Your task to perform on an android device: turn on bluetooth scan Image 0: 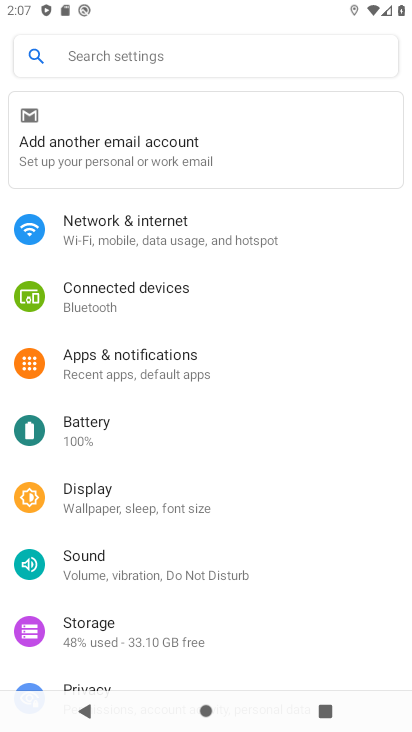
Step 0: drag from (99, 537) to (141, 304)
Your task to perform on an android device: turn on bluetooth scan Image 1: 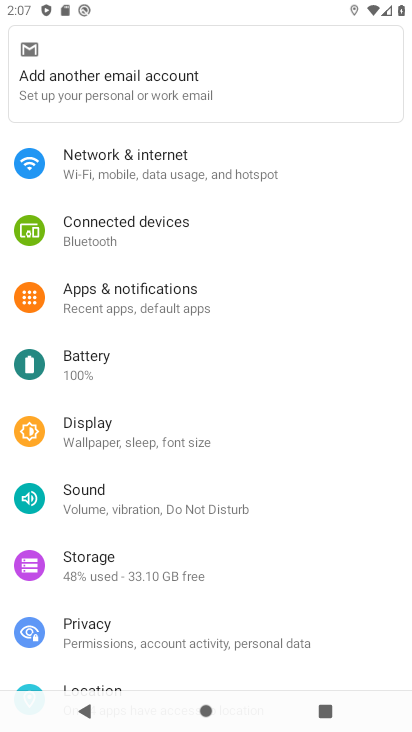
Step 1: drag from (112, 641) to (209, 312)
Your task to perform on an android device: turn on bluetooth scan Image 2: 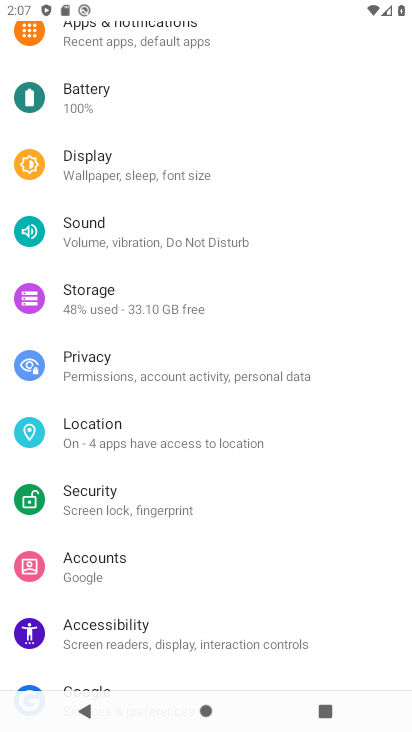
Step 2: click (136, 447)
Your task to perform on an android device: turn on bluetooth scan Image 3: 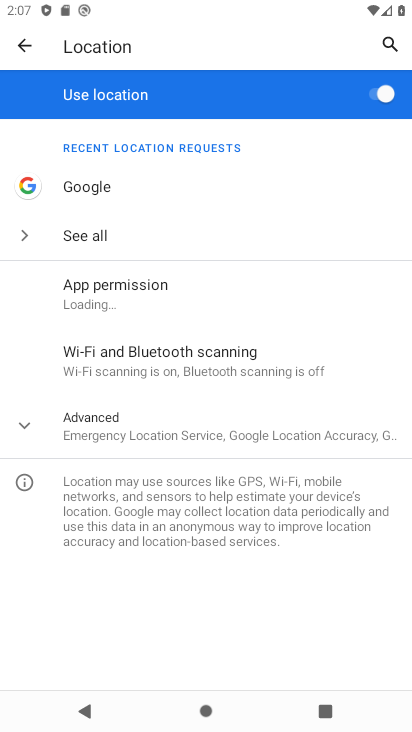
Step 3: click (174, 360)
Your task to perform on an android device: turn on bluetooth scan Image 4: 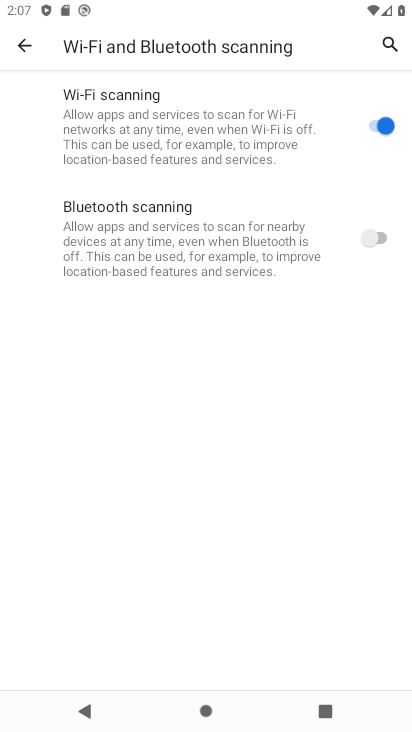
Step 4: click (380, 239)
Your task to perform on an android device: turn on bluetooth scan Image 5: 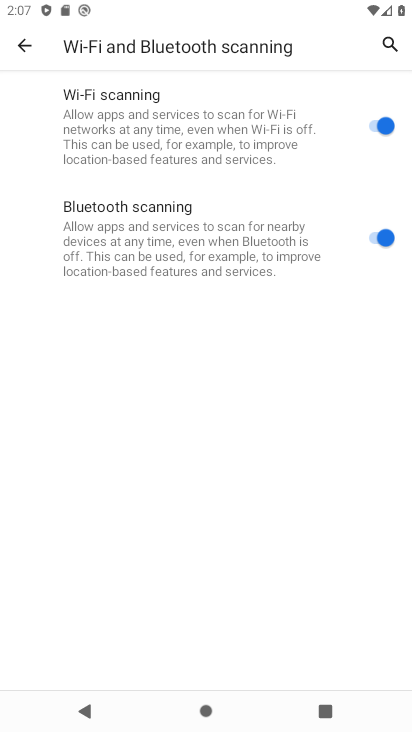
Step 5: task complete